Your task to perform on an android device: turn off translation in the chrome app Image 0: 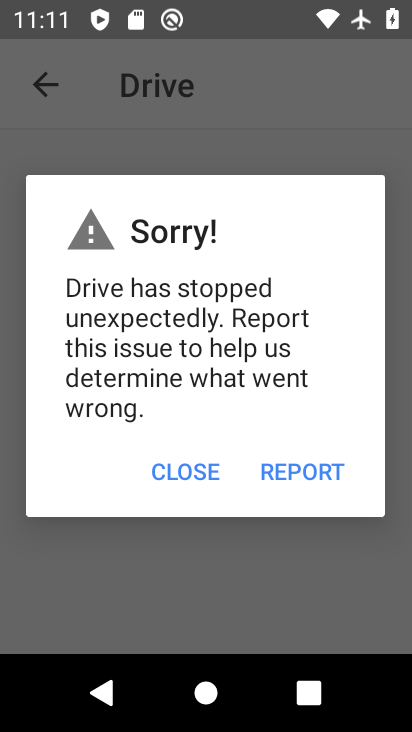
Step 0: press home button
Your task to perform on an android device: turn off translation in the chrome app Image 1: 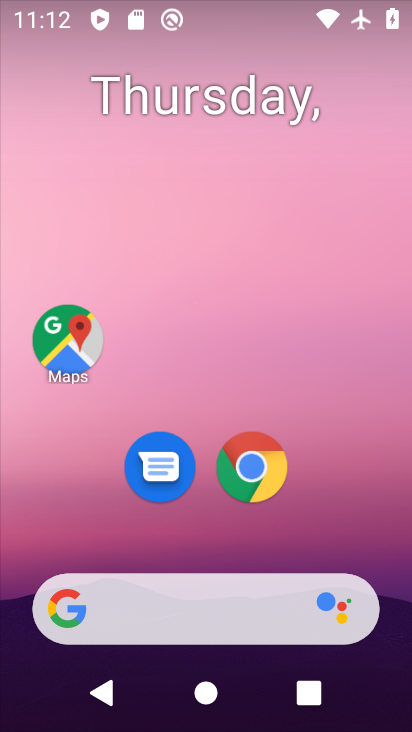
Step 1: click (254, 465)
Your task to perform on an android device: turn off translation in the chrome app Image 2: 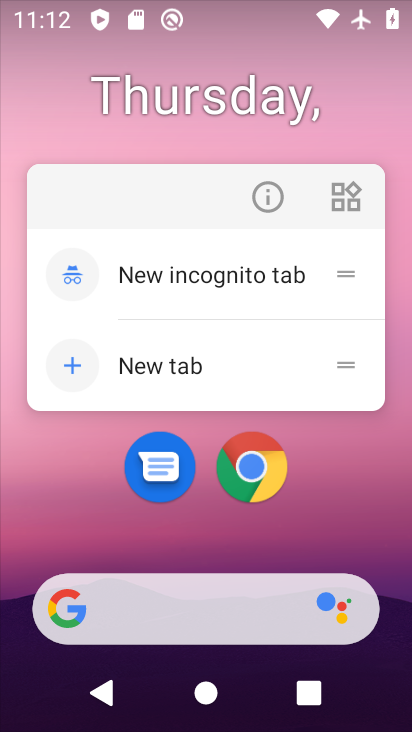
Step 2: click (254, 475)
Your task to perform on an android device: turn off translation in the chrome app Image 3: 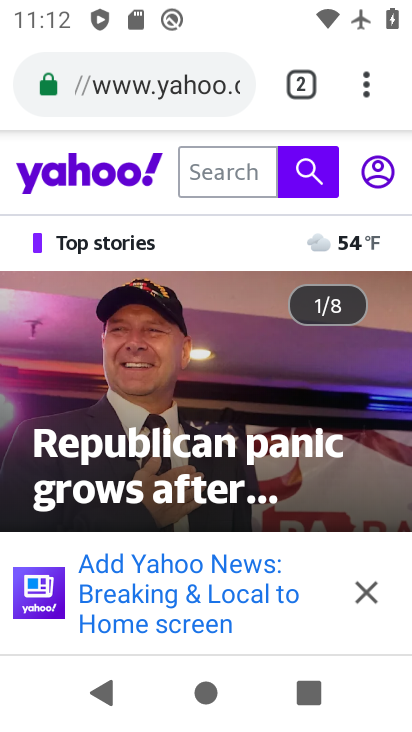
Step 3: click (366, 86)
Your task to perform on an android device: turn off translation in the chrome app Image 4: 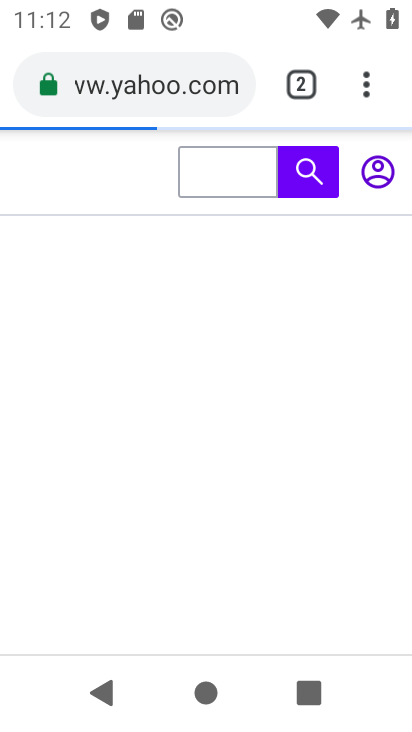
Step 4: click (366, 86)
Your task to perform on an android device: turn off translation in the chrome app Image 5: 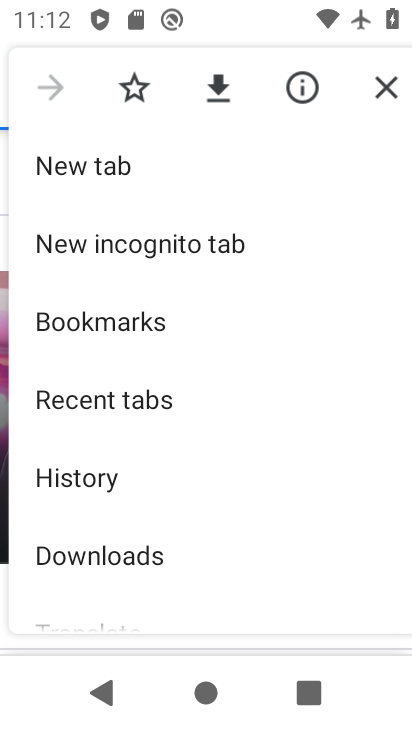
Step 5: drag from (166, 512) to (164, 146)
Your task to perform on an android device: turn off translation in the chrome app Image 6: 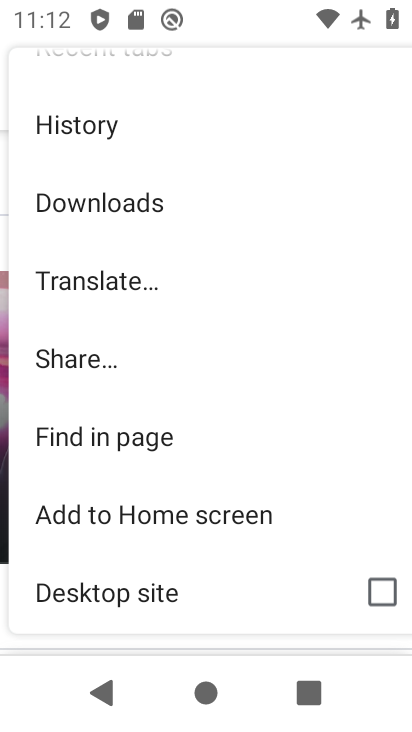
Step 6: drag from (102, 516) to (122, 173)
Your task to perform on an android device: turn off translation in the chrome app Image 7: 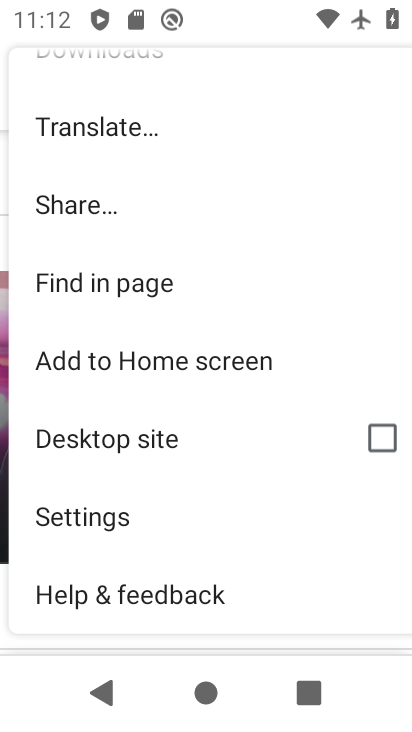
Step 7: click (87, 520)
Your task to perform on an android device: turn off translation in the chrome app Image 8: 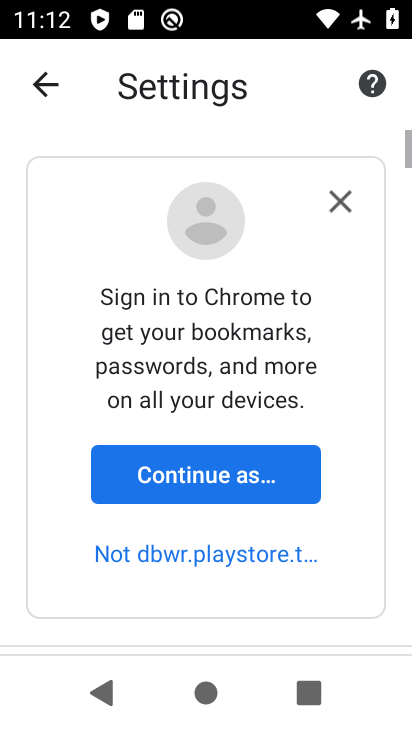
Step 8: drag from (161, 581) to (185, 110)
Your task to perform on an android device: turn off translation in the chrome app Image 9: 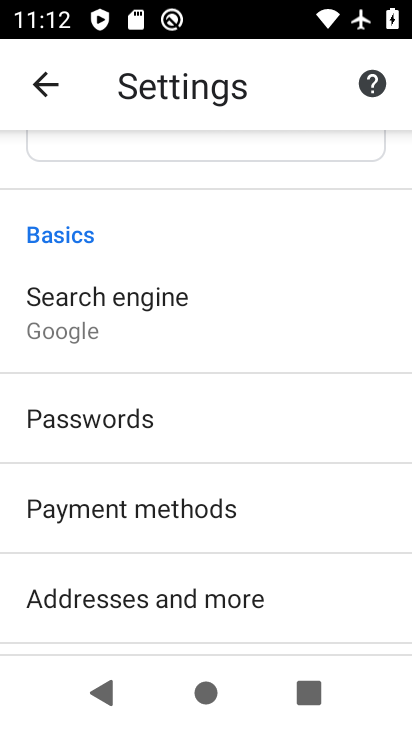
Step 9: drag from (166, 559) to (167, 194)
Your task to perform on an android device: turn off translation in the chrome app Image 10: 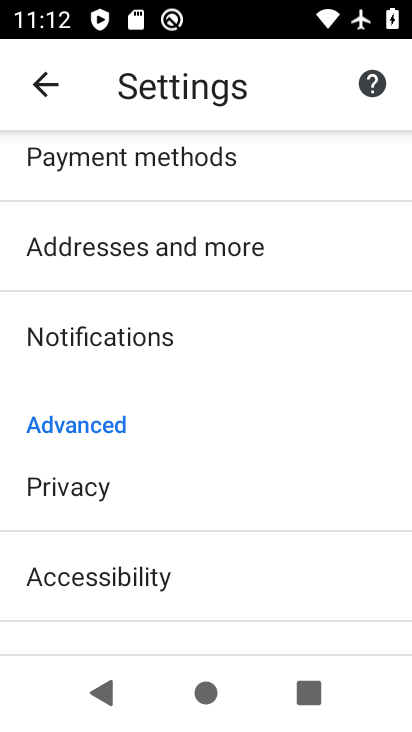
Step 10: drag from (152, 508) to (163, 198)
Your task to perform on an android device: turn off translation in the chrome app Image 11: 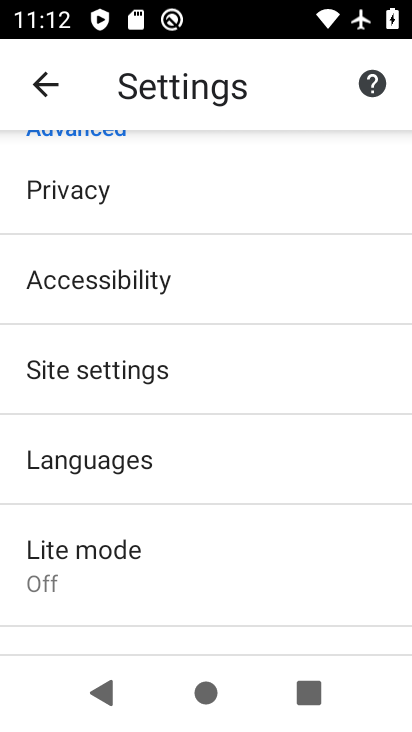
Step 11: click (93, 460)
Your task to perform on an android device: turn off translation in the chrome app Image 12: 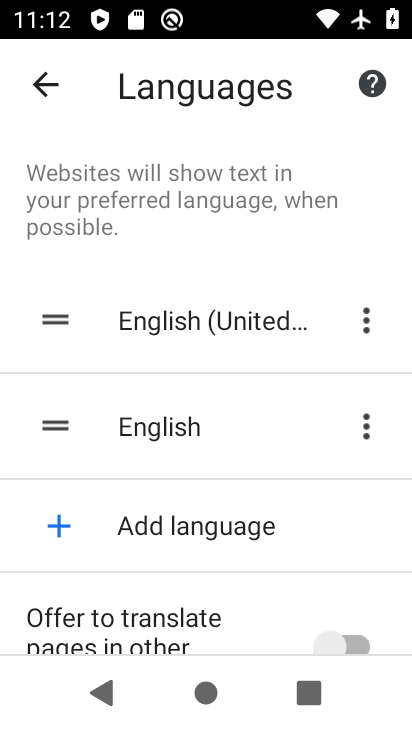
Step 12: task complete